Your task to perform on an android device: Open ESPN.com Image 0: 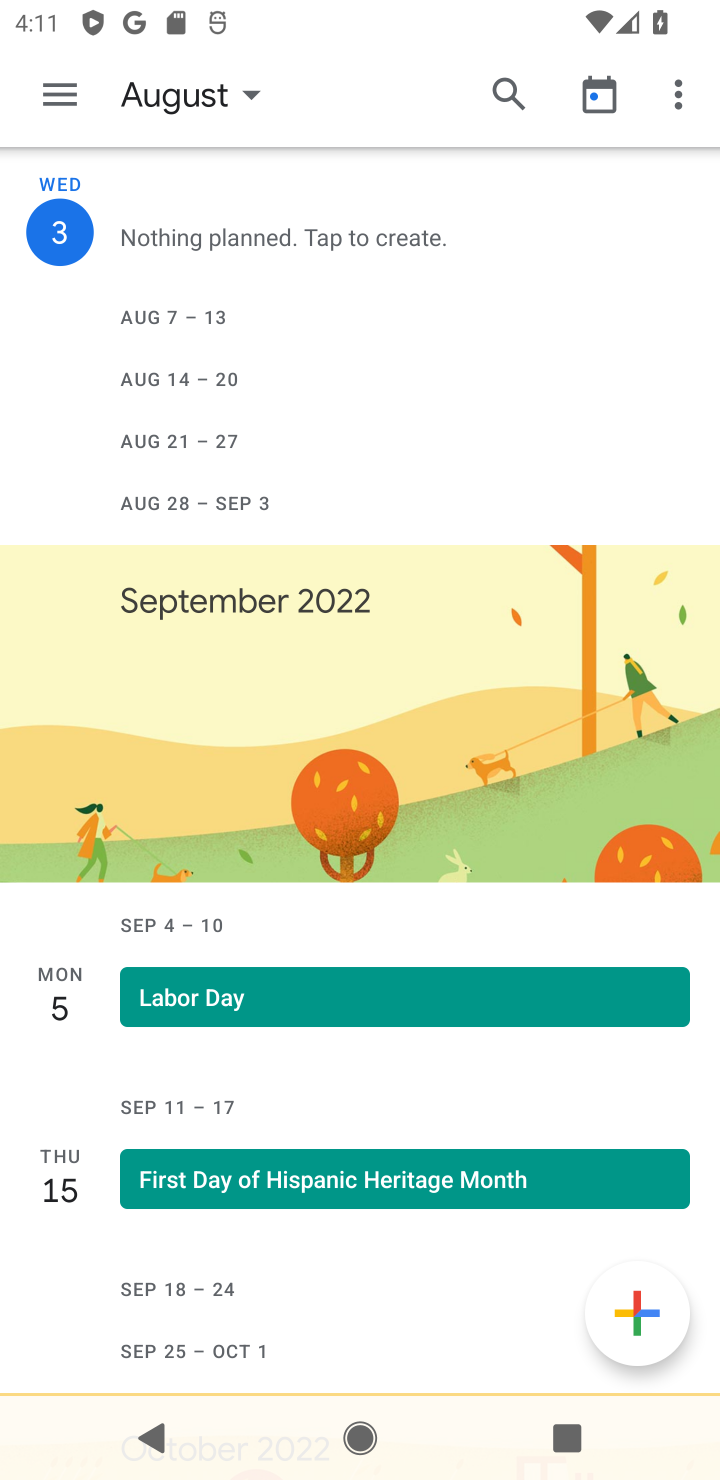
Step 0: press home button
Your task to perform on an android device: Open ESPN.com Image 1: 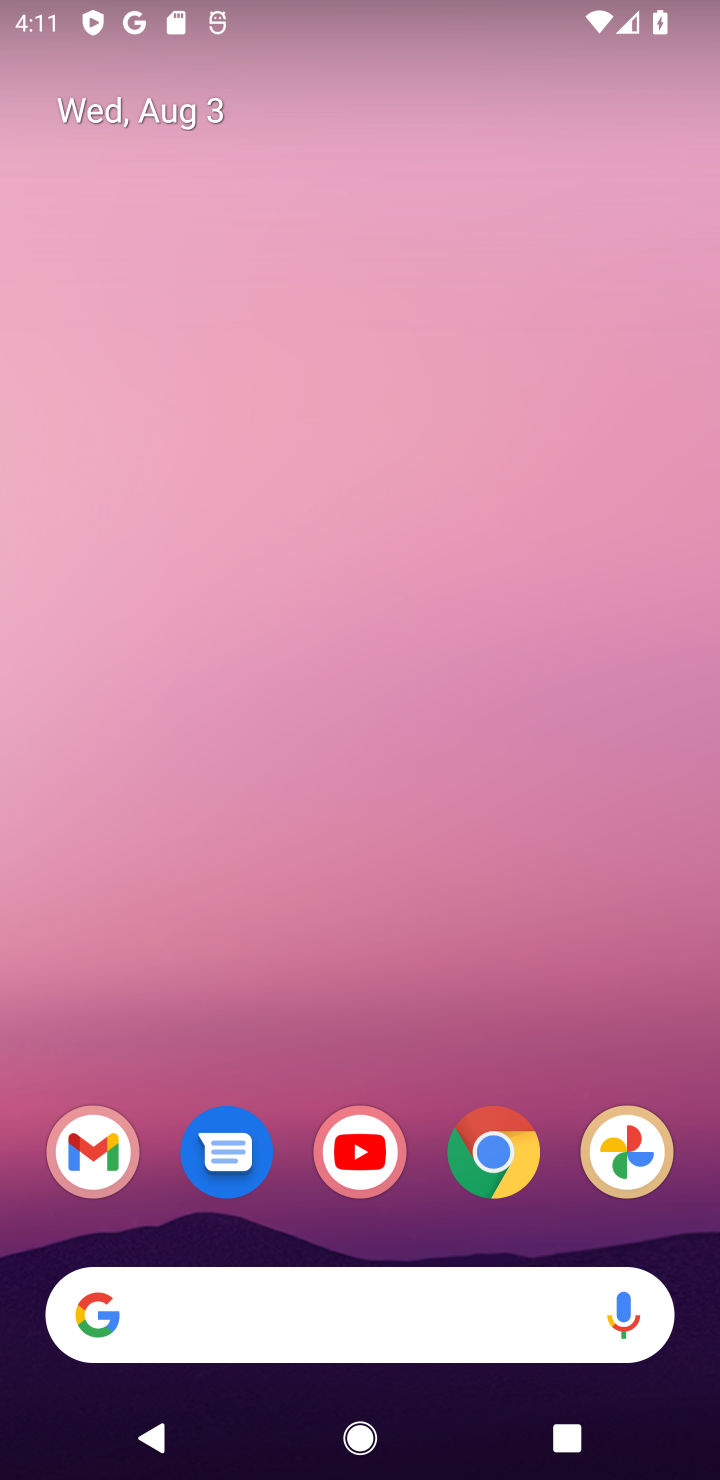
Step 1: click (471, 1146)
Your task to perform on an android device: Open ESPN.com Image 2: 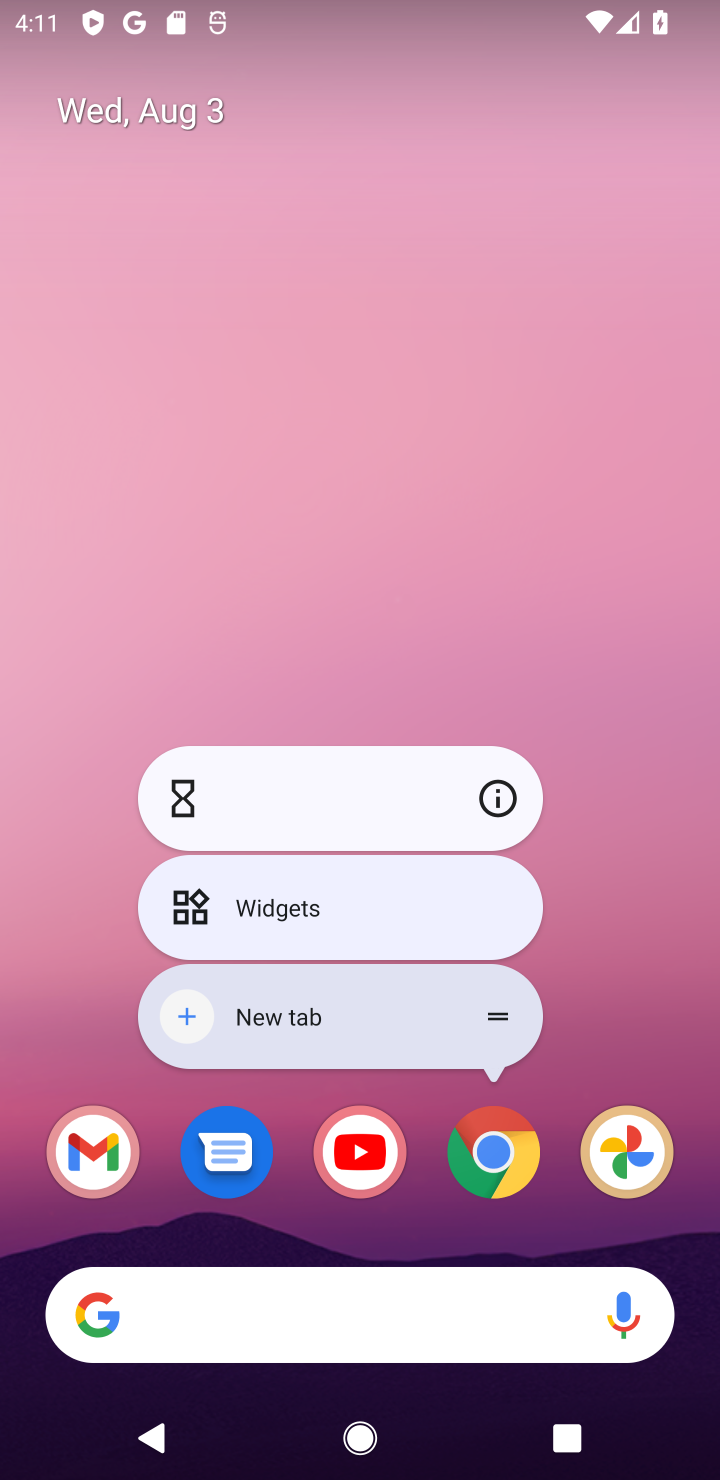
Step 2: click (455, 1159)
Your task to perform on an android device: Open ESPN.com Image 3: 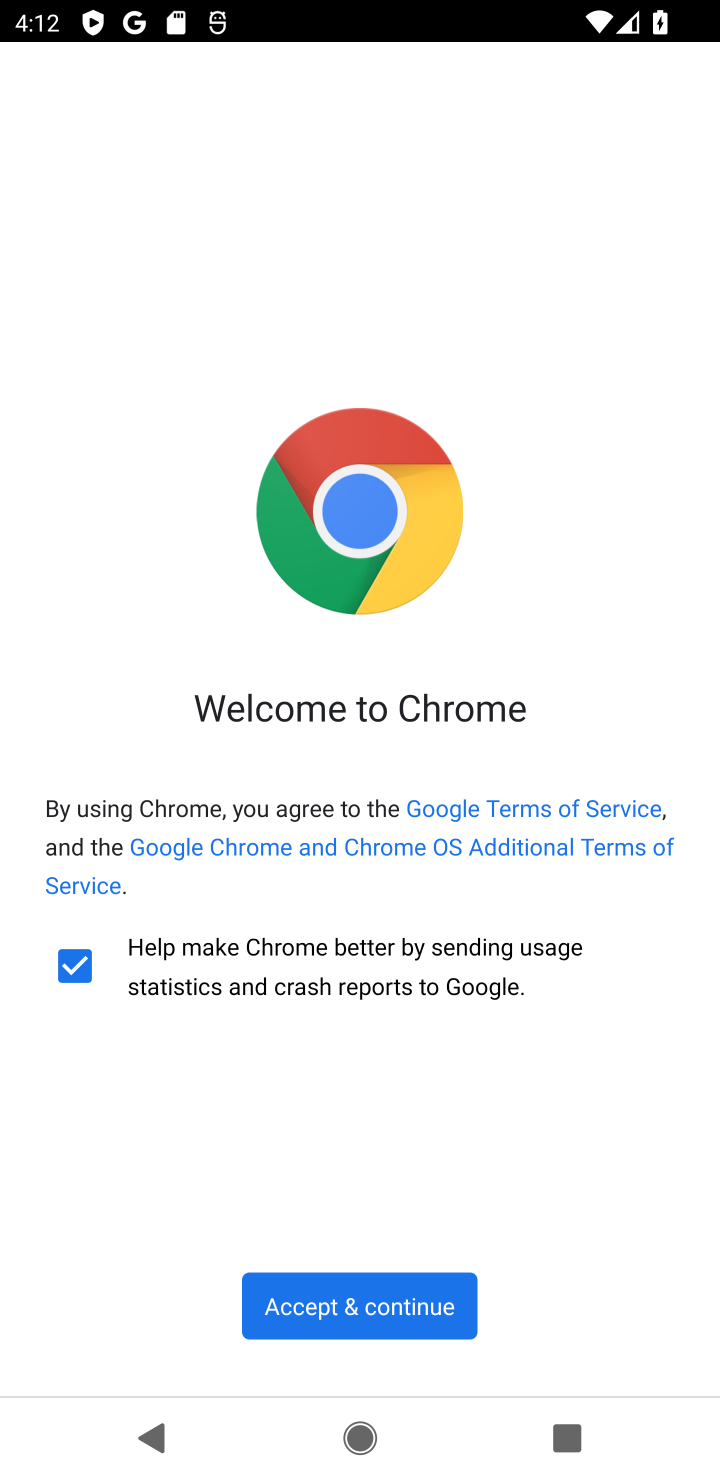
Step 3: click (392, 1311)
Your task to perform on an android device: Open ESPN.com Image 4: 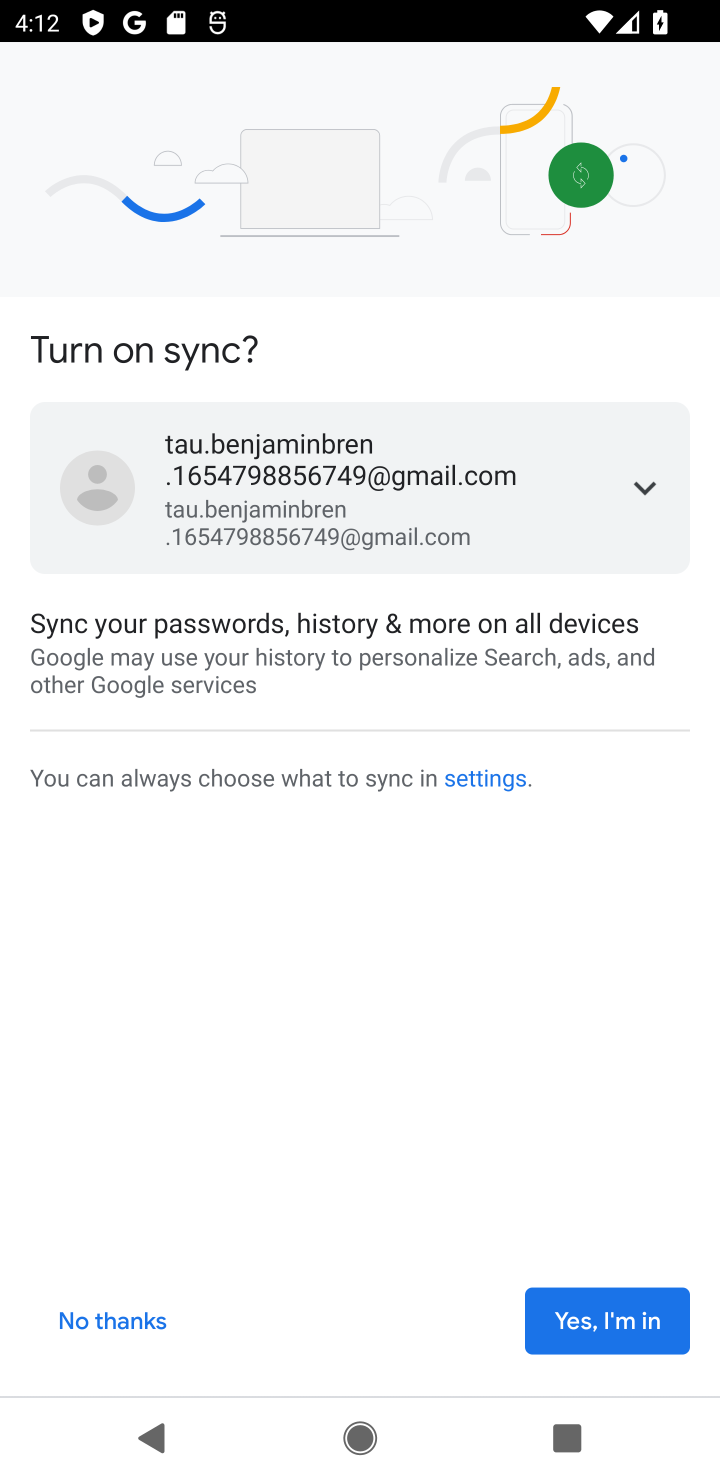
Step 4: click (548, 1336)
Your task to perform on an android device: Open ESPN.com Image 5: 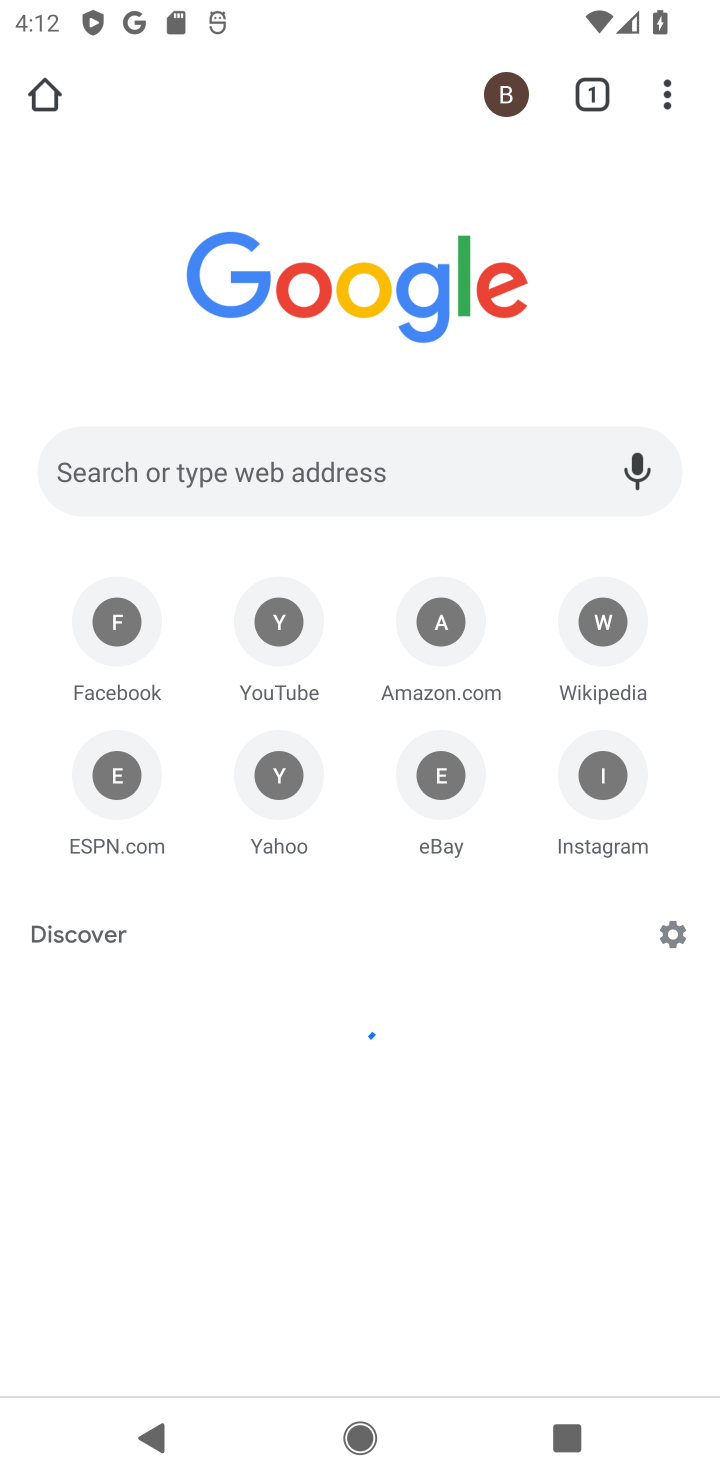
Step 5: click (326, 482)
Your task to perform on an android device: Open ESPN.com Image 6: 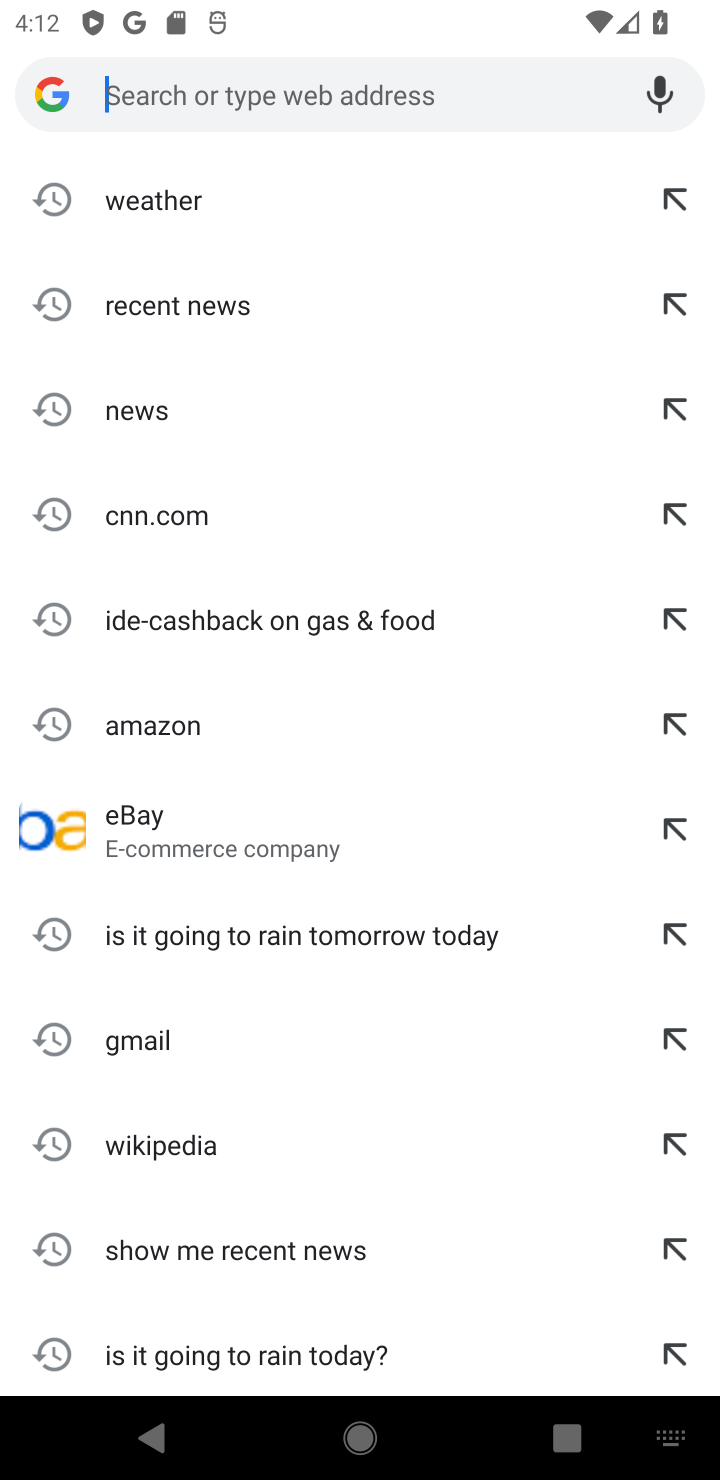
Step 6: type "espn.com"
Your task to perform on an android device: Open ESPN.com Image 7: 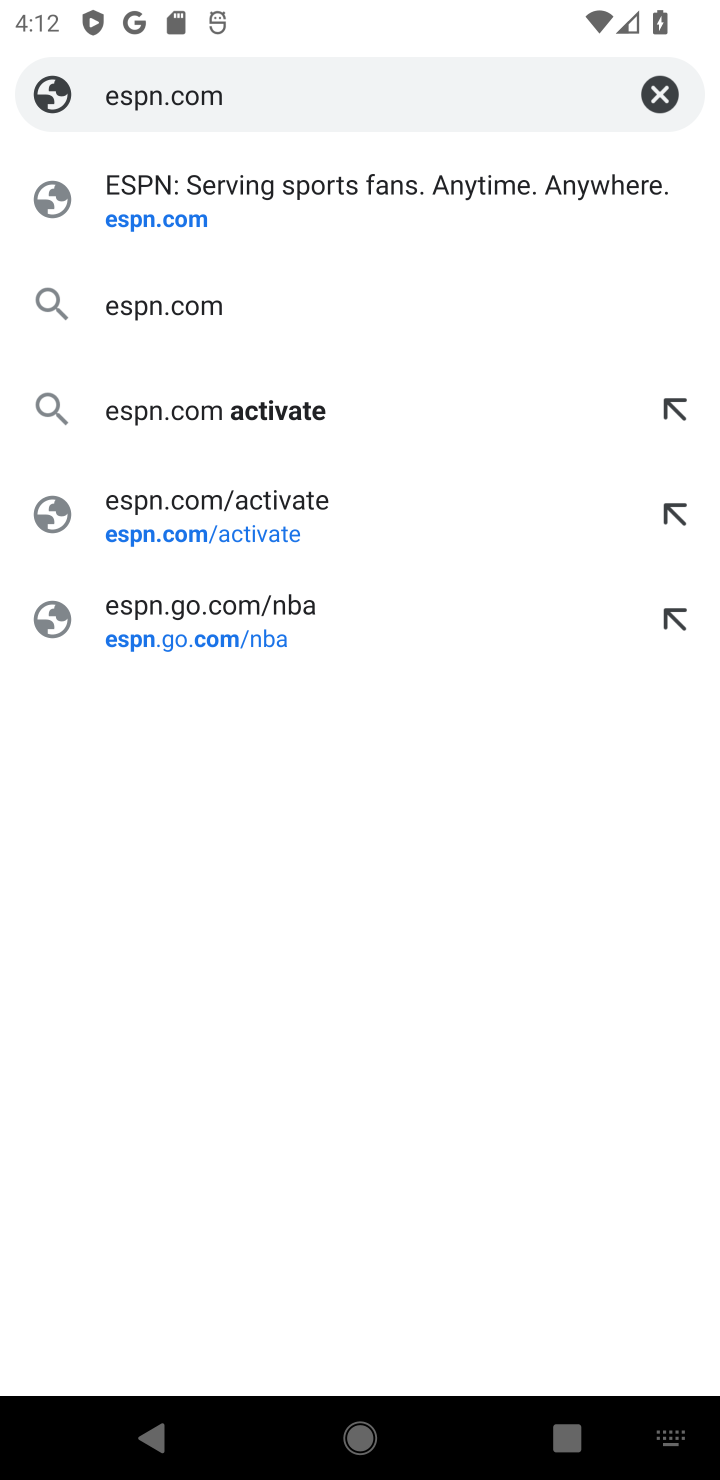
Step 7: click (182, 203)
Your task to perform on an android device: Open ESPN.com Image 8: 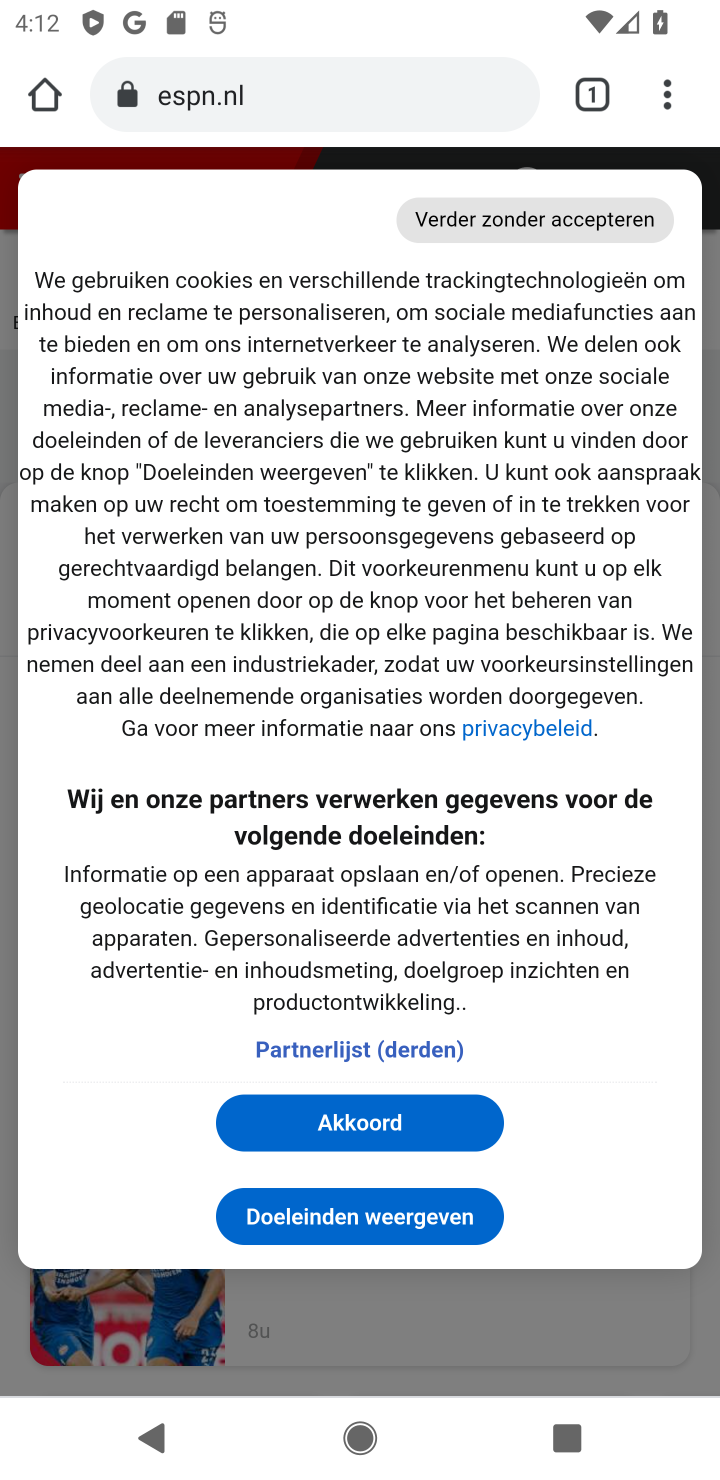
Step 8: task complete